Your task to perform on an android device: toggle notification dots Image 0: 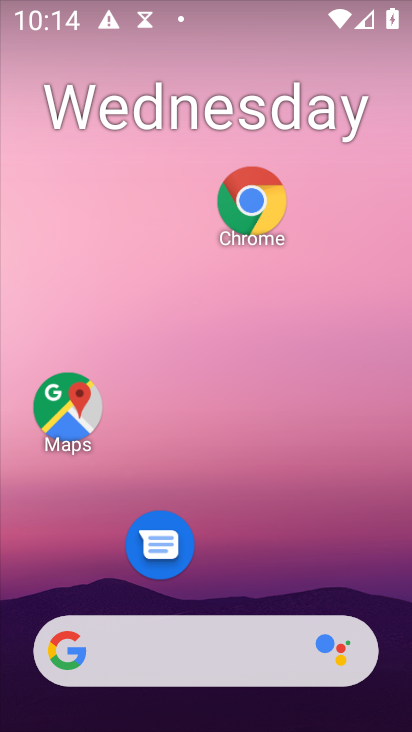
Step 0: drag from (313, 512) to (362, 26)
Your task to perform on an android device: toggle notification dots Image 1: 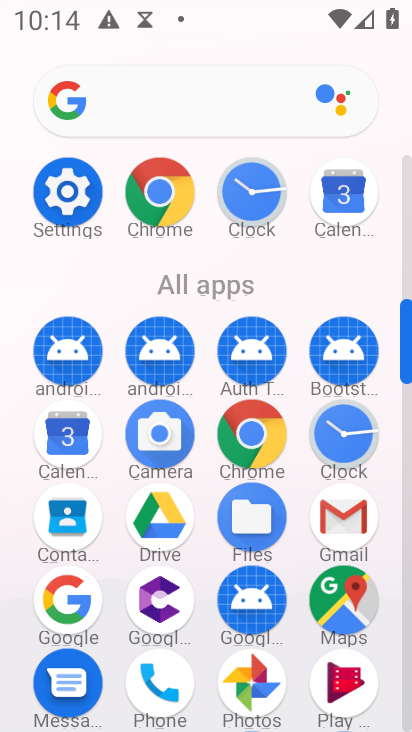
Step 1: click (57, 186)
Your task to perform on an android device: toggle notification dots Image 2: 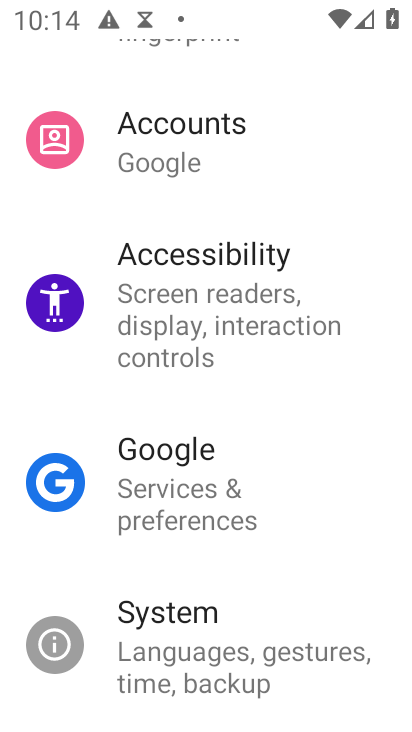
Step 2: drag from (264, 323) to (277, 726)
Your task to perform on an android device: toggle notification dots Image 3: 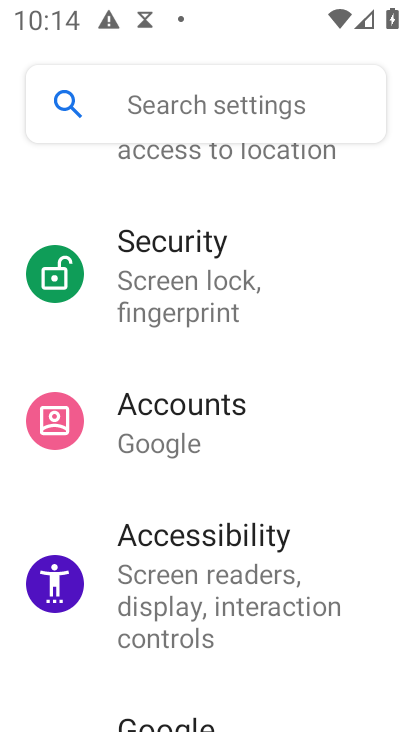
Step 3: drag from (273, 346) to (284, 690)
Your task to perform on an android device: toggle notification dots Image 4: 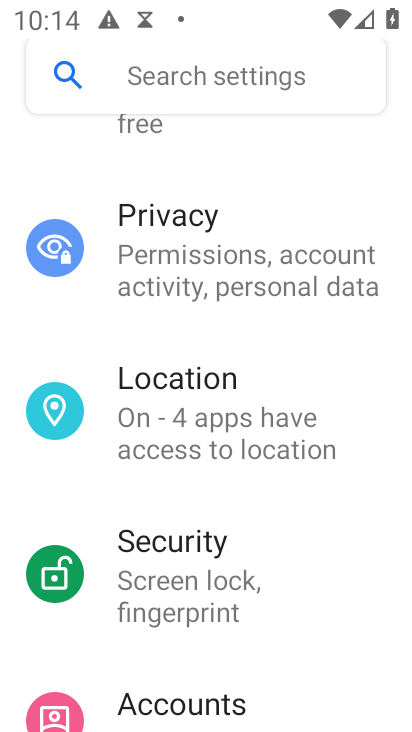
Step 4: drag from (287, 326) to (320, 649)
Your task to perform on an android device: toggle notification dots Image 5: 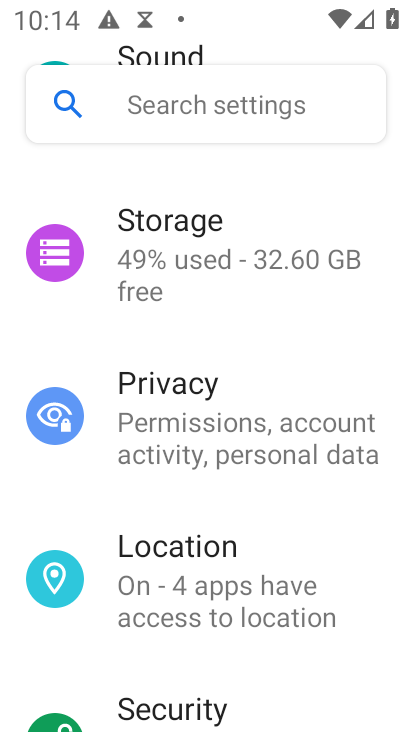
Step 5: drag from (283, 208) to (320, 707)
Your task to perform on an android device: toggle notification dots Image 6: 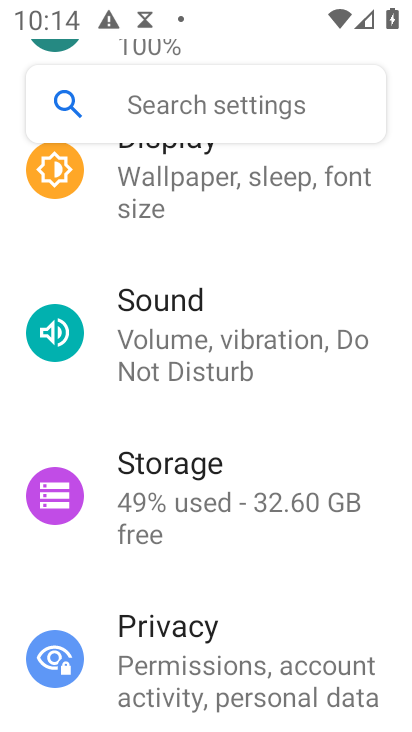
Step 6: drag from (294, 238) to (411, 700)
Your task to perform on an android device: toggle notification dots Image 7: 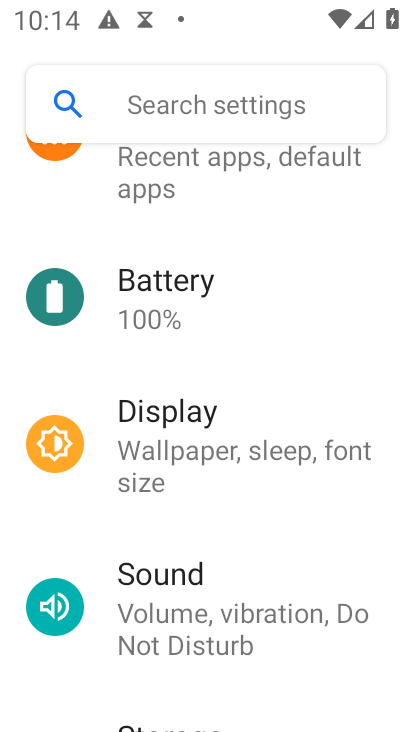
Step 7: click (211, 171)
Your task to perform on an android device: toggle notification dots Image 8: 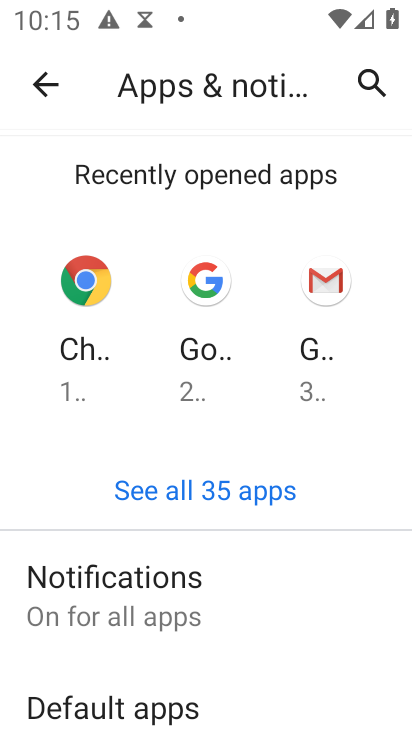
Step 8: click (170, 625)
Your task to perform on an android device: toggle notification dots Image 9: 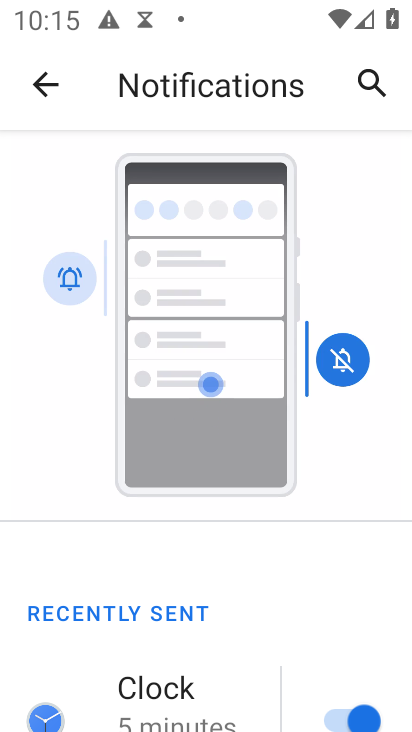
Step 9: drag from (174, 627) to (173, 180)
Your task to perform on an android device: toggle notification dots Image 10: 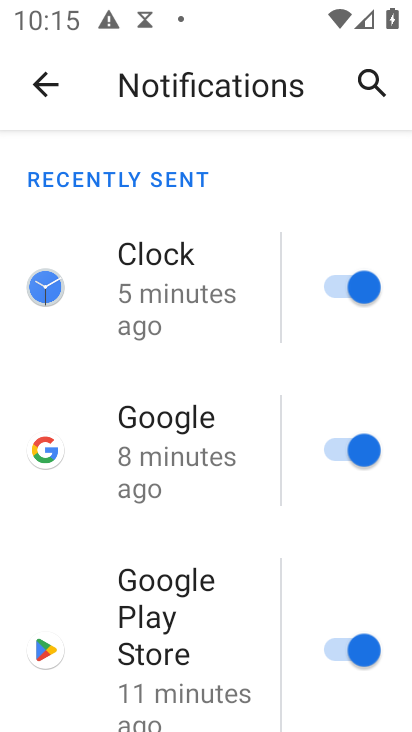
Step 10: drag from (220, 578) to (150, 215)
Your task to perform on an android device: toggle notification dots Image 11: 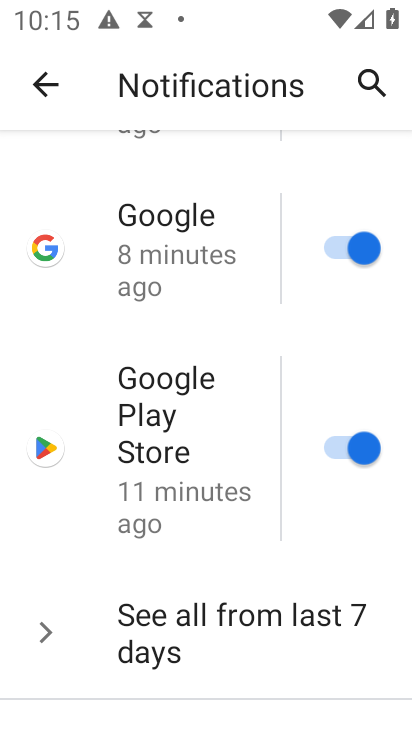
Step 11: drag from (178, 665) to (148, 252)
Your task to perform on an android device: toggle notification dots Image 12: 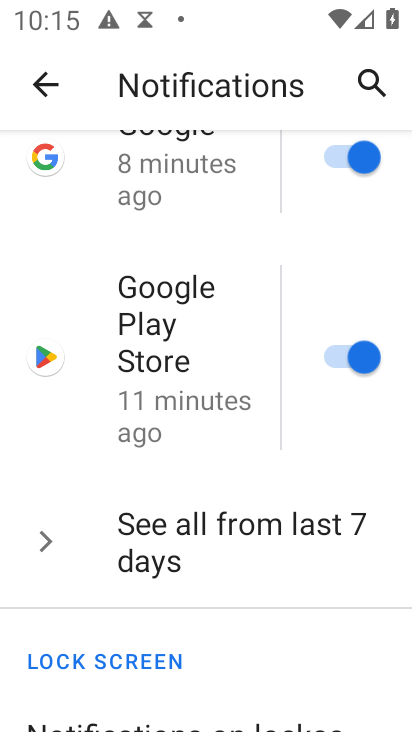
Step 12: drag from (198, 605) to (154, 268)
Your task to perform on an android device: toggle notification dots Image 13: 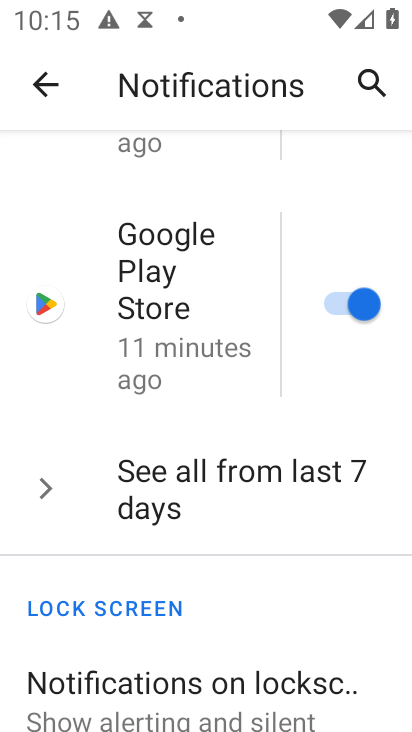
Step 13: drag from (258, 712) to (231, 258)
Your task to perform on an android device: toggle notification dots Image 14: 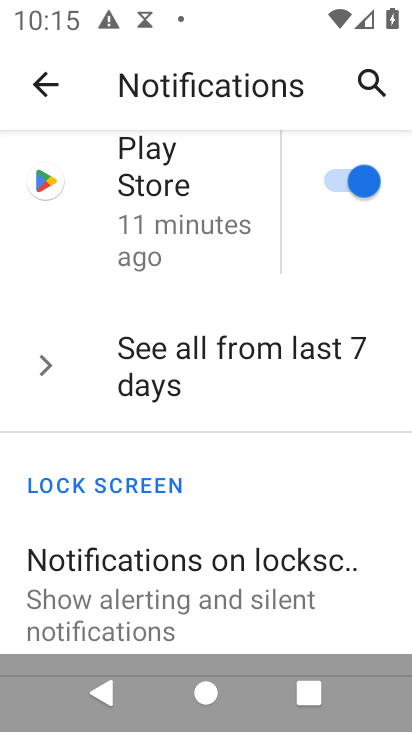
Step 14: drag from (294, 499) to (260, 107)
Your task to perform on an android device: toggle notification dots Image 15: 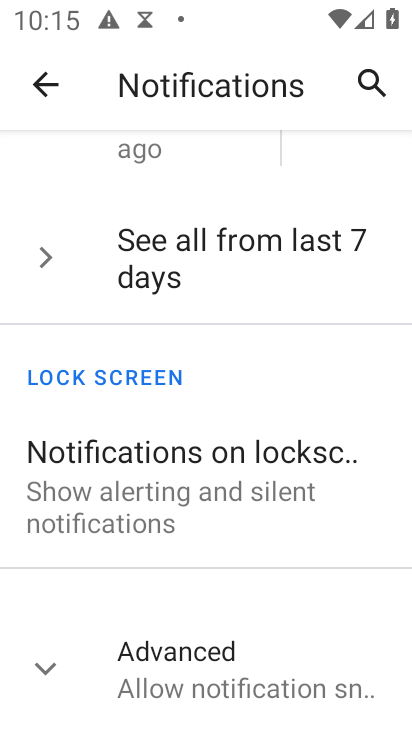
Step 15: drag from (305, 556) to (258, 289)
Your task to perform on an android device: toggle notification dots Image 16: 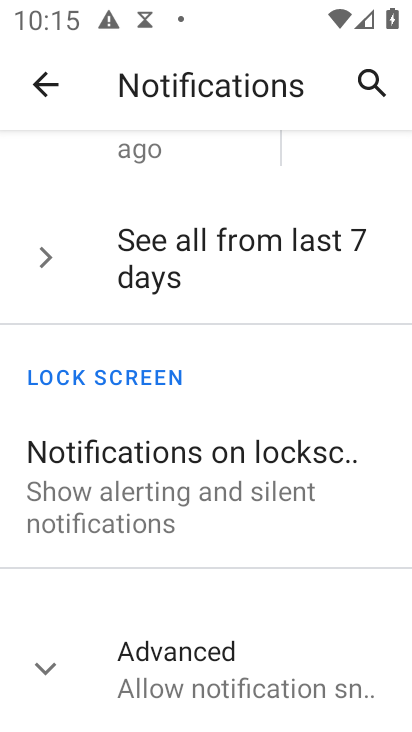
Step 16: click (309, 665)
Your task to perform on an android device: toggle notification dots Image 17: 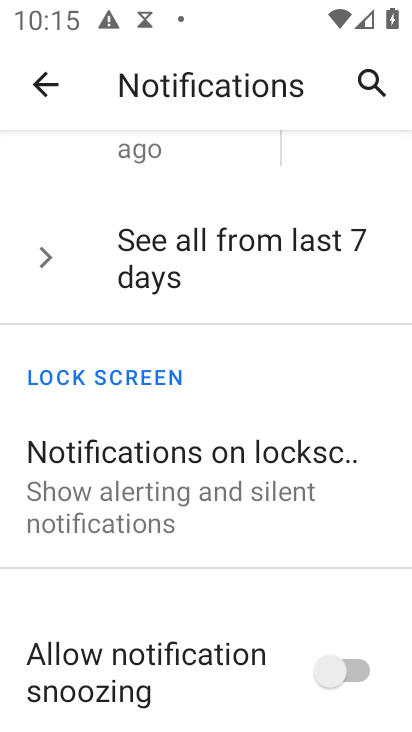
Step 17: drag from (226, 643) to (210, 243)
Your task to perform on an android device: toggle notification dots Image 18: 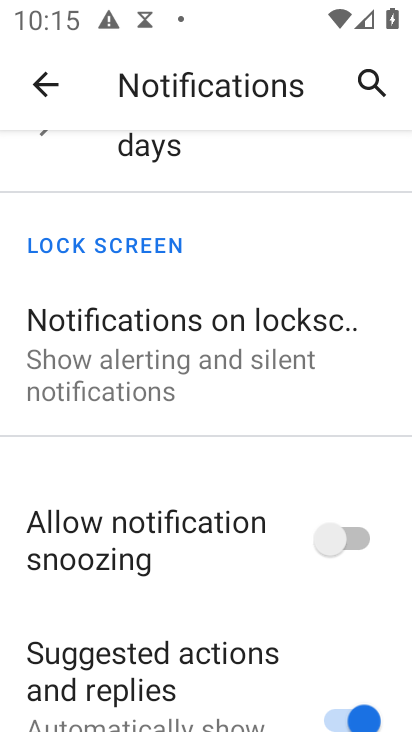
Step 18: drag from (232, 645) to (203, 194)
Your task to perform on an android device: toggle notification dots Image 19: 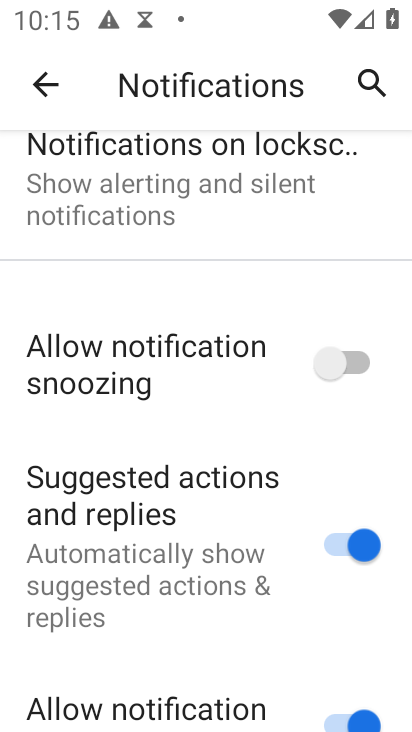
Step 19: drag from (206, 666) to (206, 219)
Your task to perform on an android device: toggle notification dots Image 20: 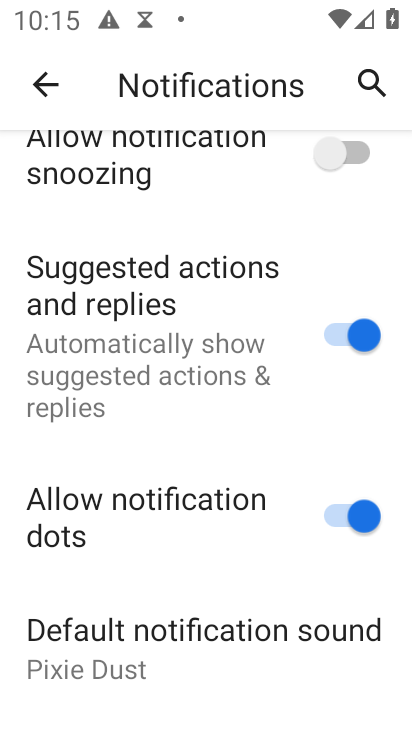
Step 20: click (364, 512)
Your task to perform on an android device: toggle notification dots Image 21: 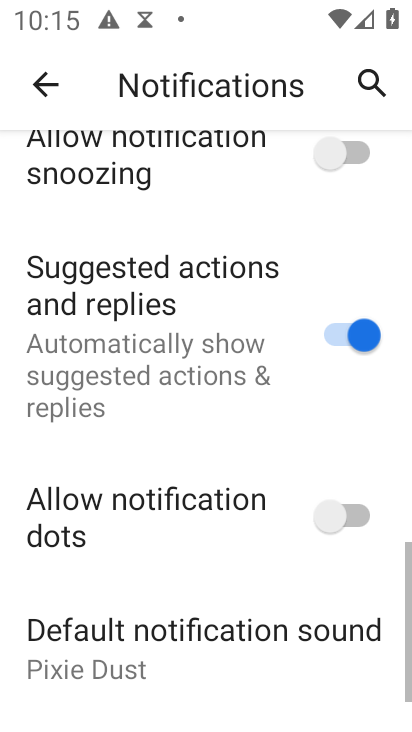
Step 21: task complete